Your task to perform on an android device: toggle translation in the chrome app Image 0: 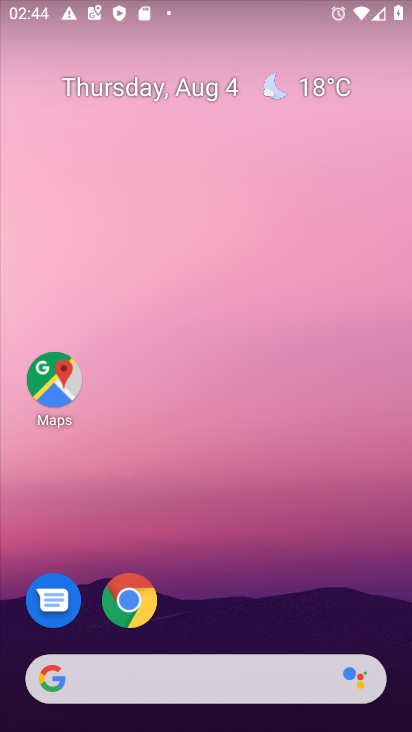
Step 0: click (127, 608)
Your task to perform on an android device: toggle translation in the chrome app Image 1: 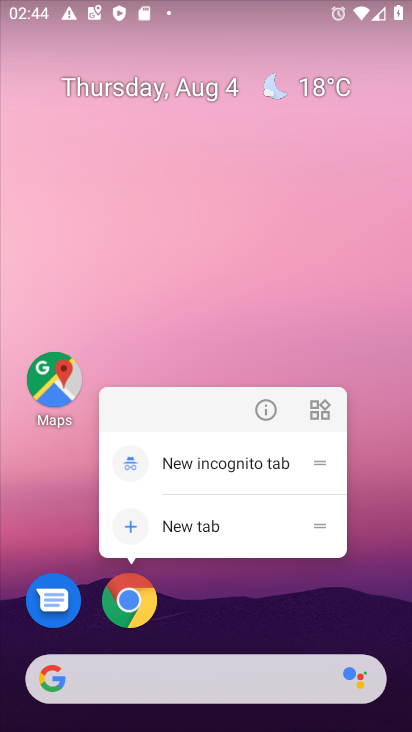
Step 1: click (137, 597)
Your task to perform on an android device: toggle translation in the chrome app Image 2: 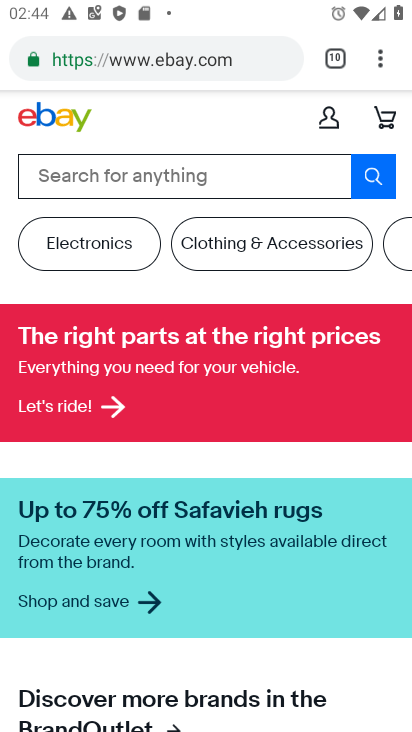
Step 2: click (377, 55)
Your task to perform on an android device: toggle translation in the chrome app Image 3: 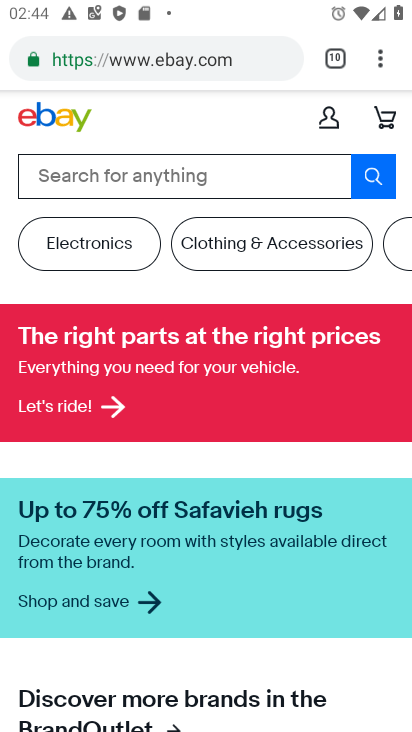
Step 3: drag from (376, 53) to (210, 634)
Your task to perform on an android device: toggle translation in the chrome app Image 4: 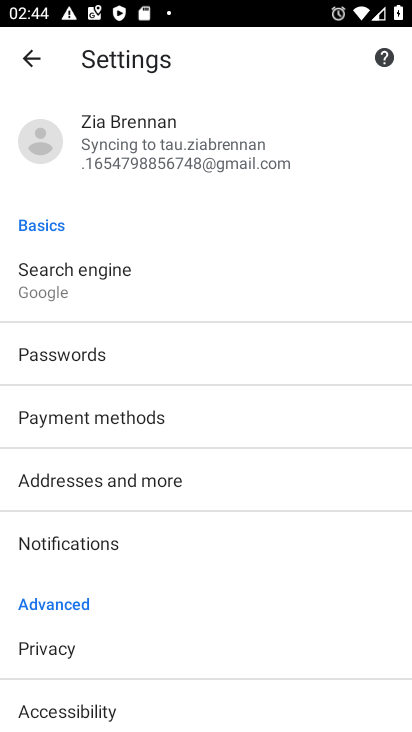
Step 4: drag from (200, 612) to (350, 122)
Your task to perform on an android device: toggle translation in the chrome app Image 5: 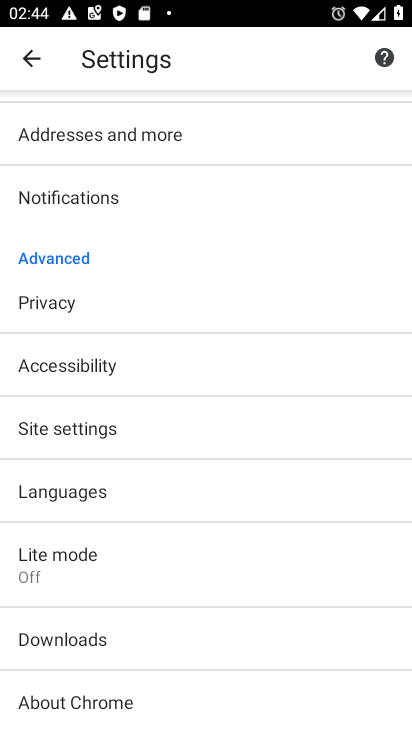
Step 5: click (79, 501)
Your task to perform on an android device: toggle translation in the chrome app Image 6: 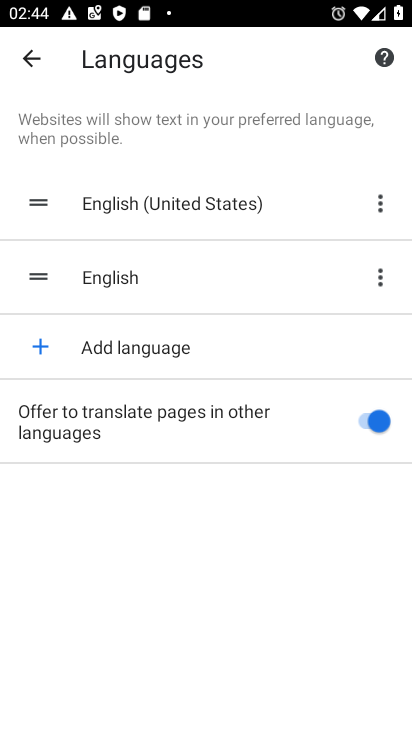
Step 6: click (359, 420)
Your task to perform on an android device: toggle translation in the chrome app Image 7: 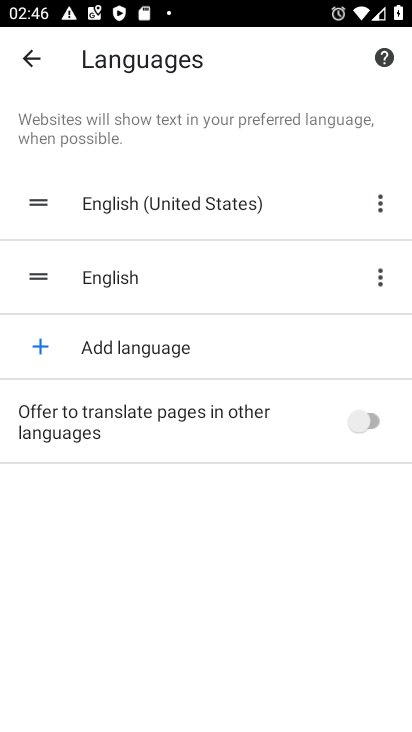
Step 7: task complete